Your task to perform on an android device: set an alarm Image 0: 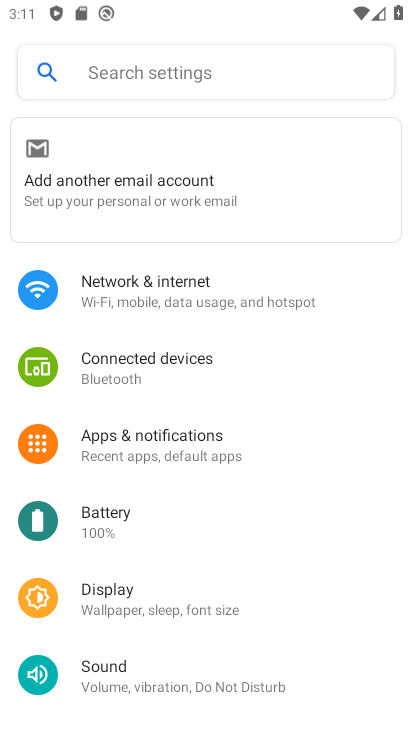
Step 0: press home button
Your task to perform on an android device: set an alarm Image 1: 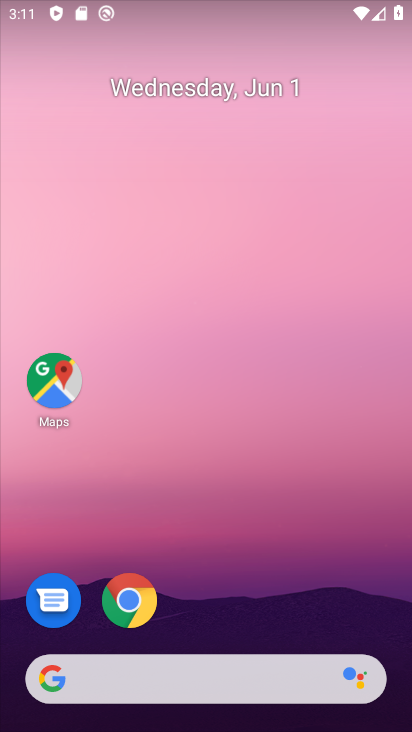
Step 1: drag from (231, 624) to (171, 87)
Your task to perform on an android device: set an alarm Image 2: 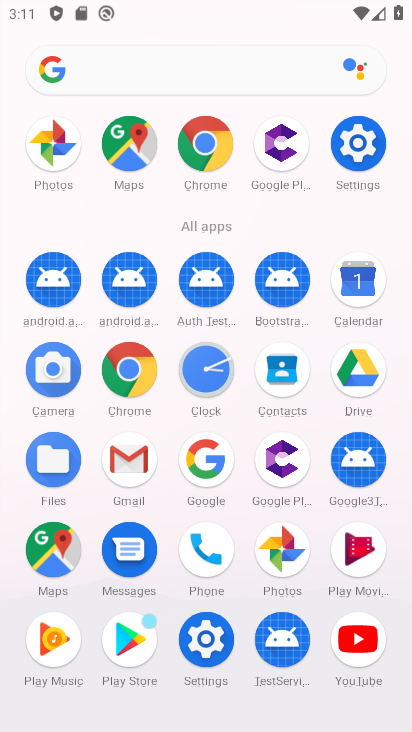
Step 2: click (205, 382)
Your task to perform on an android device: set an alarm Image 3: 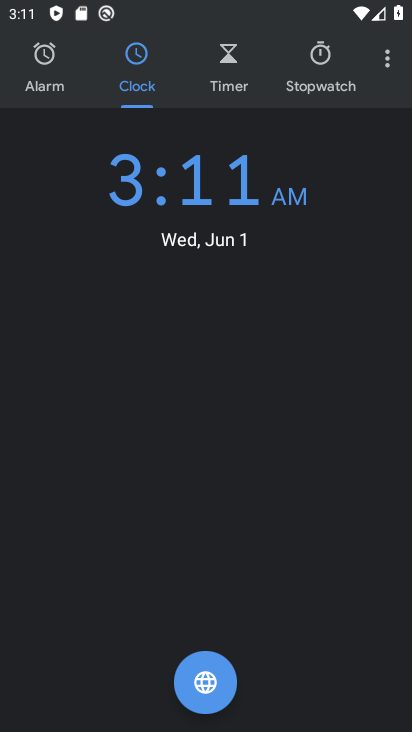
Step 3: click (39, 84)
Your task to perform on an android device: set an alarm Image 4: 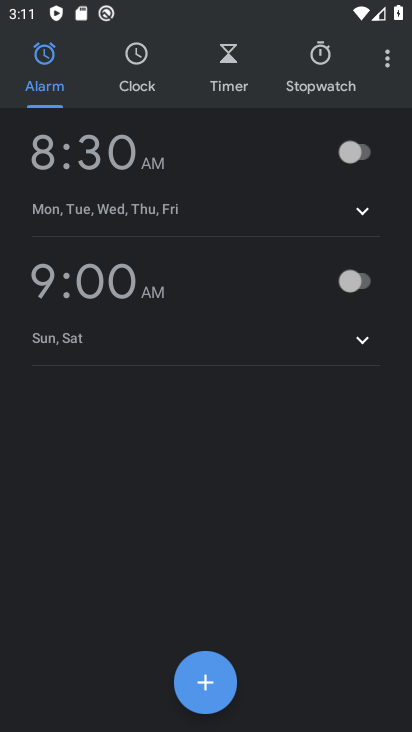
Step 4: click (374, 158)
Your task to perform on an android device: set an alarm Image 5: 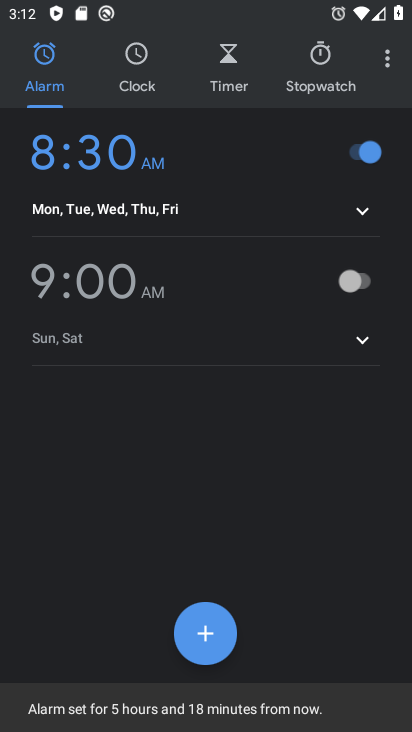
Step 5: task complete